Your task to perform on an android device: What's on my calendar today? Image 0: 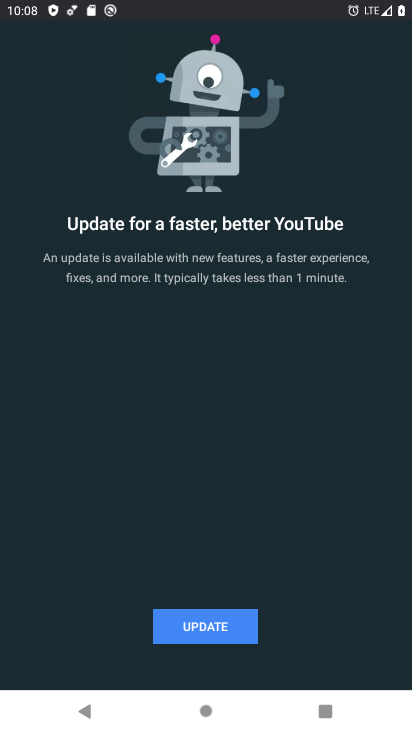
Step 0: press home button
Your task to perform on an android device: What's on my calendar today? Image 1: 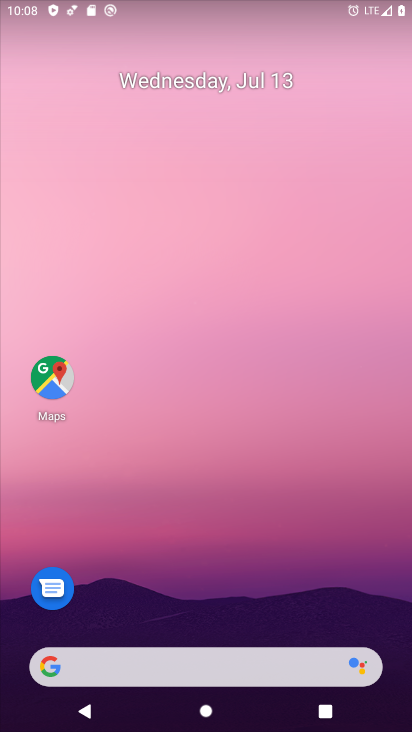
Step 1: drag from (260, 715) to (321, 157)
Your task to perform on an android device: What's on my calendar today? Image 2: 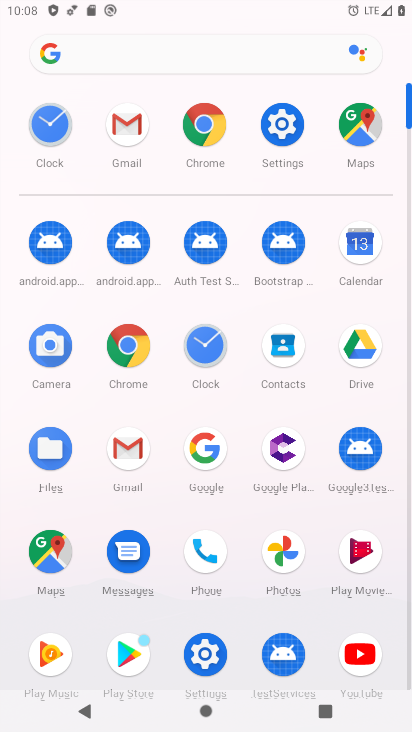
Step 2: click (351, 247)
Your task to perform on an android device: What's on my calendar today? Image 3: 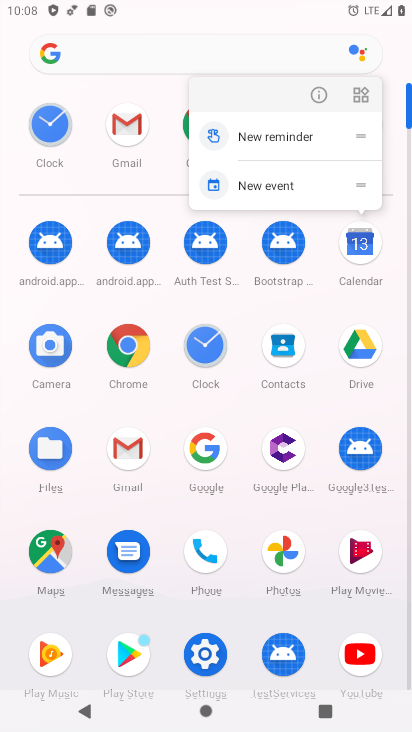
Step 3: click (351, 244)
Your task to perform on an android device: What's on my calendar today? Image 4: 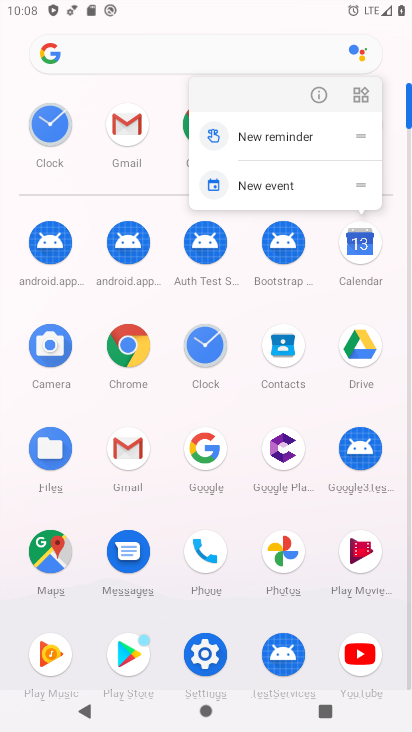
Step 4: click (351, 244)
Your task to perform on an android device: What's on my calendar today? Image 5: 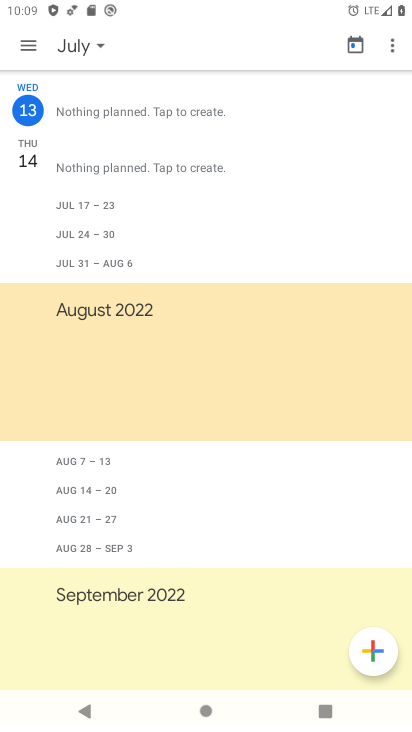
Step 5: task complete